Your task to perform on an android device: Open internet settings Image 0: 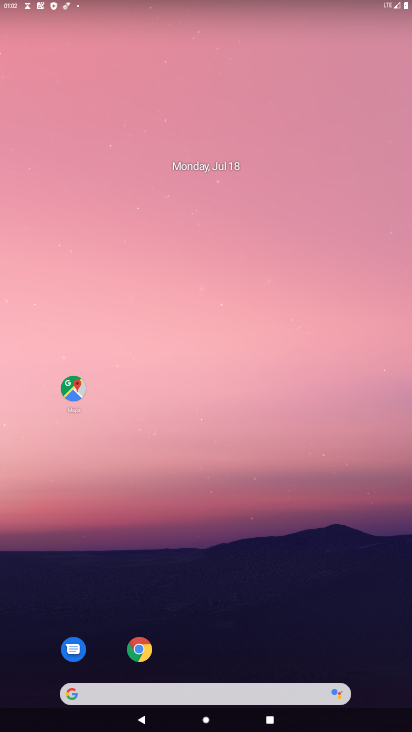
Step 0: drag from (182, 450) to (159, 139)
Your task to perform on an android device: Open internet settings Image 1: 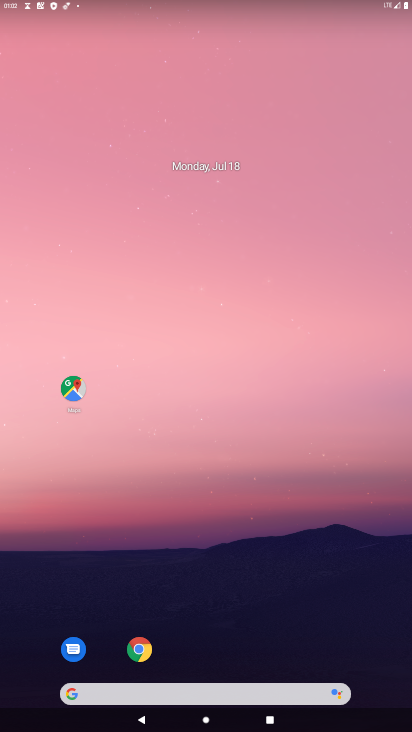
Step 1: drag from (222, 615) to (174, 19)
Your task to perform on an android device: Open internet settings Image 2: 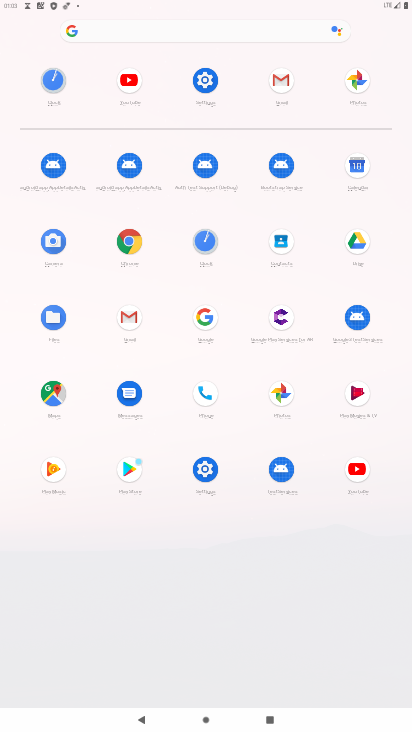
Step 2: click (202, 157)
Your task to perform on an android device: Open internet settings Image 3: 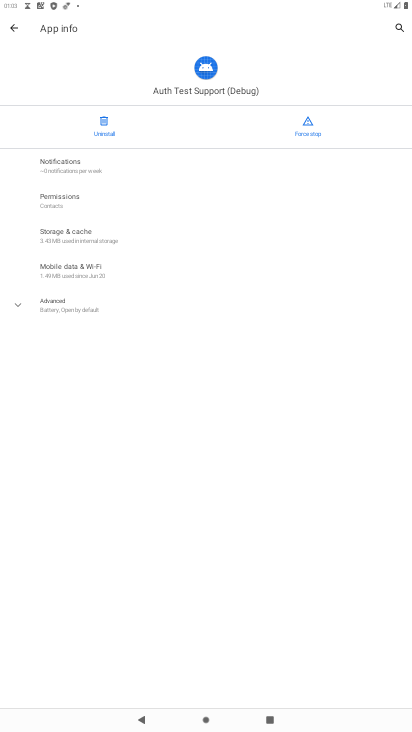
Step 3: task complete